Your task to perform on an android device: Go to calendar. Show me events next week Image 0: 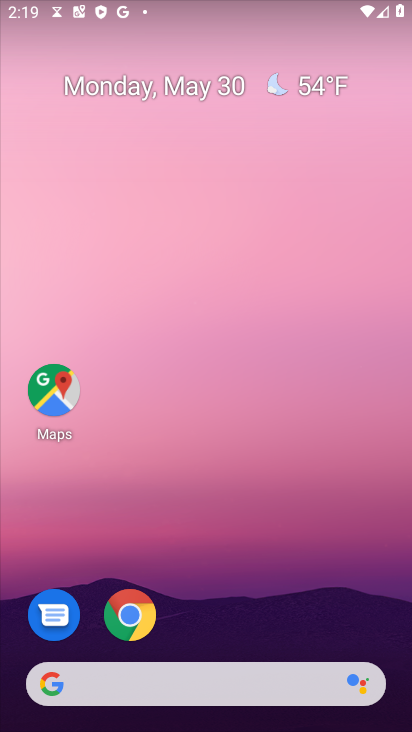
Step 0: drag from (276, 614) to (359, 85)
Your task to perform on an android device: Go to calendar. Show me events next week Image 1: 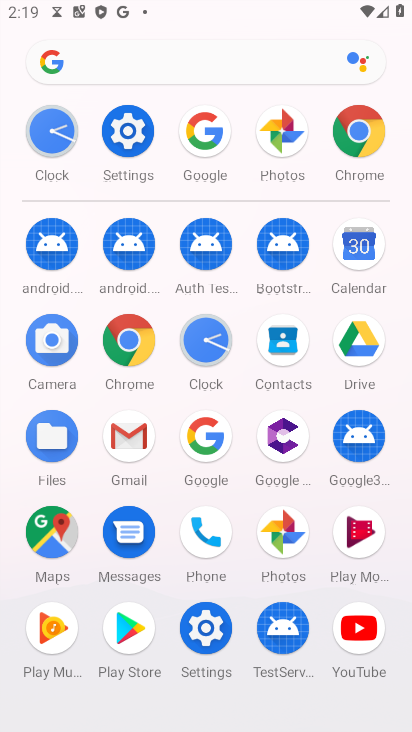
Step 1: click (343, 252)
Your task to perform on an android device: Go to calendar. Show me events next week Image 2: 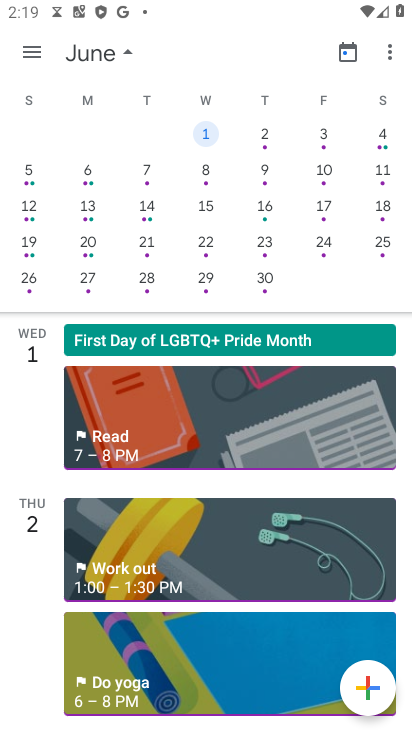
Step 2: drag from (389, 265) to (150, 268)
Your task to perform on an android device: Go to calendar. Show me events next week Image 3: 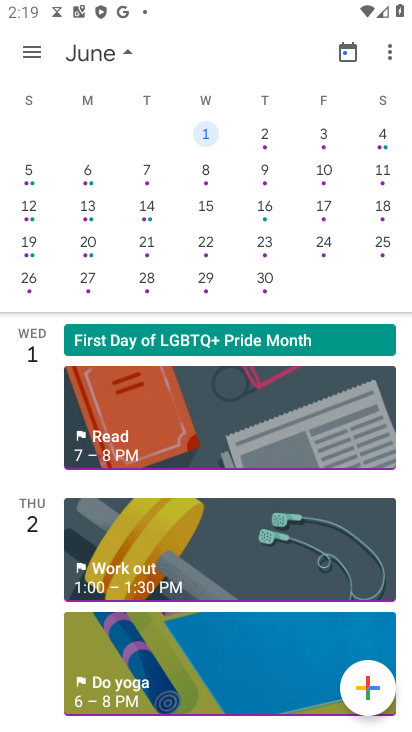
Step 3: drag from (148, 231) to (379, 315)
Your task to perform on an android device: Go to calendar. Show me events next week Image 4: 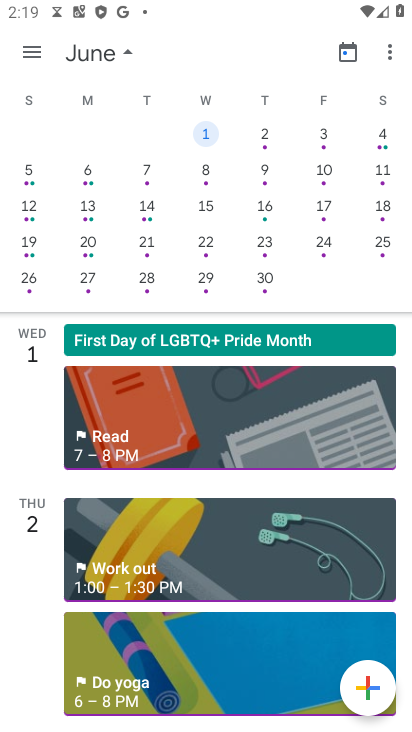
Step 4: click (200, 174)
Your task to perform on an android device: Go to calendar. Show me events next week Image 5: 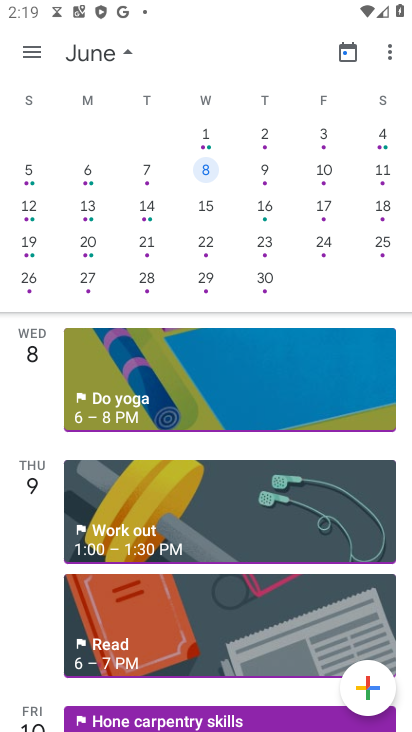
Step 5: task complete